Your task to perform on an android device: Open Yahoo.com Image 0: 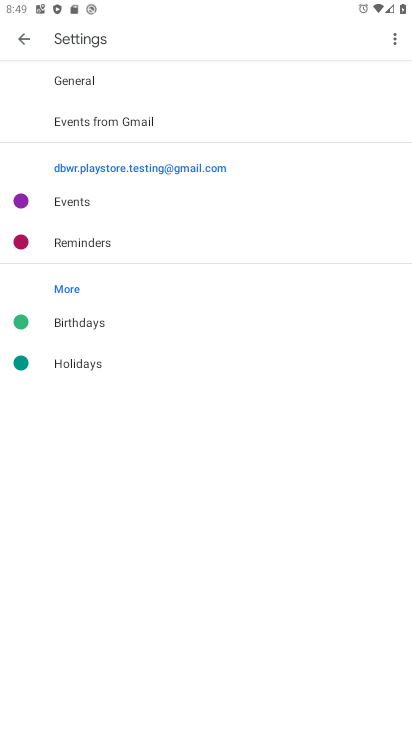
Step 0: press home button
Your task to perform on an android device: Open Yahoo.com Image 1: 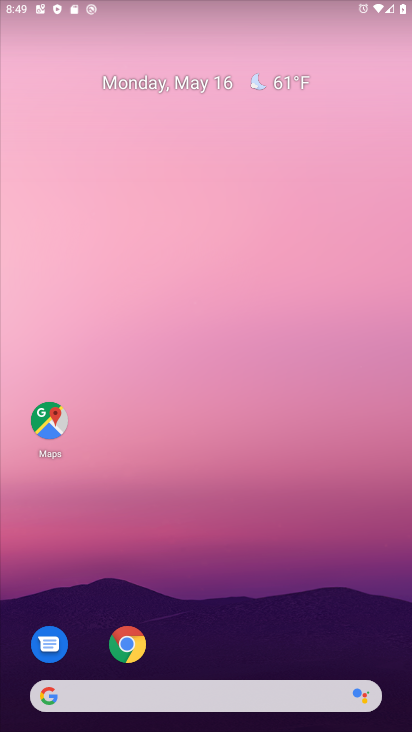
Step 1: click (126, 650)
Your task to perform on an android device: Open Yahoo.com Image 2: 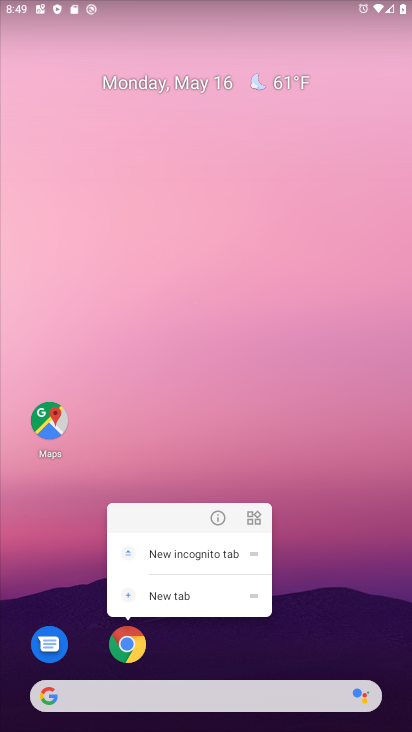
Step 2: click (128, 639)
Your task to perform on an android device: Open Yahoo.com Image 3: 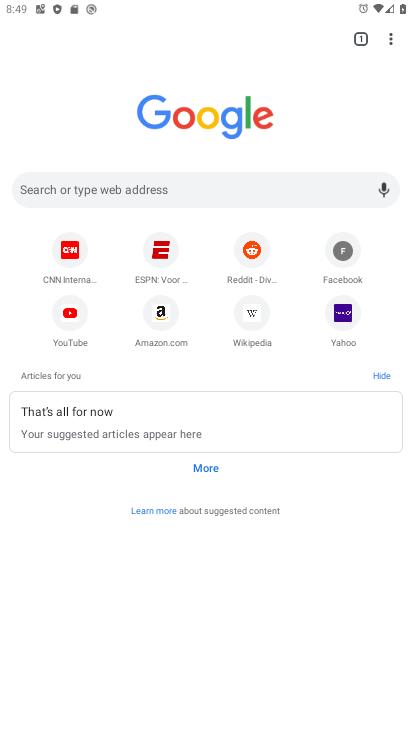
Step 3: click (349, 311)
Your task to perform on an android device: Open Yahoo.com Image 4: 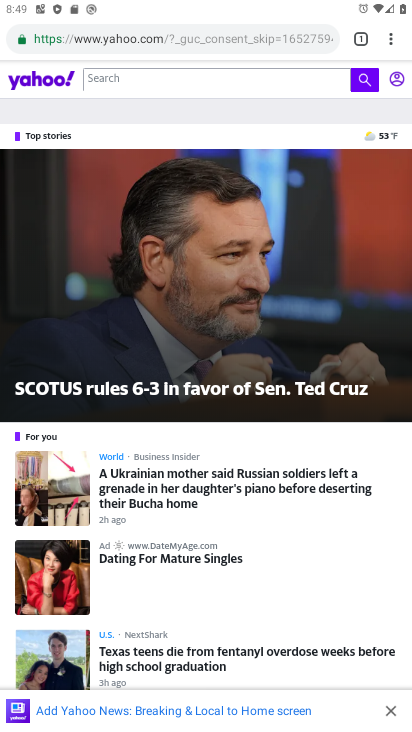
Step 4: task complete